Your task to perform on an android device: refresh tabs in the chrome app Image 0: 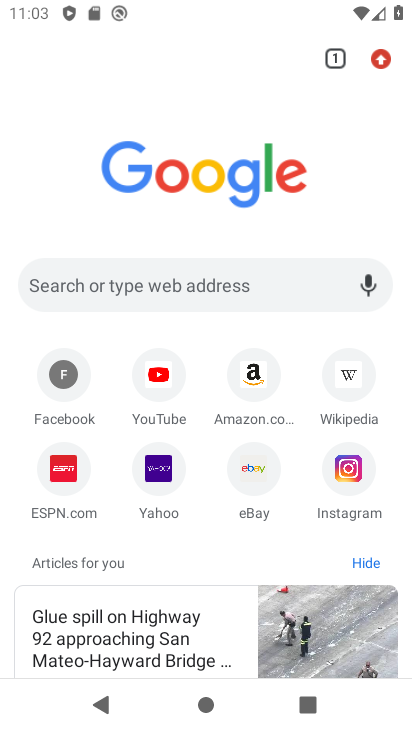
Step 0: click (375, 51)
Your task to perform on an android device: refresh tabs in the chrome app Image 1: 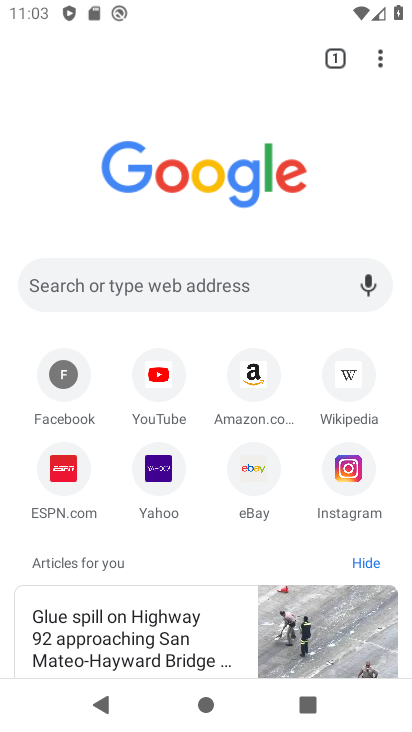
Step 1: task complete